Your task to perform on an android device: delete browsing data in the chrome app Image 0: 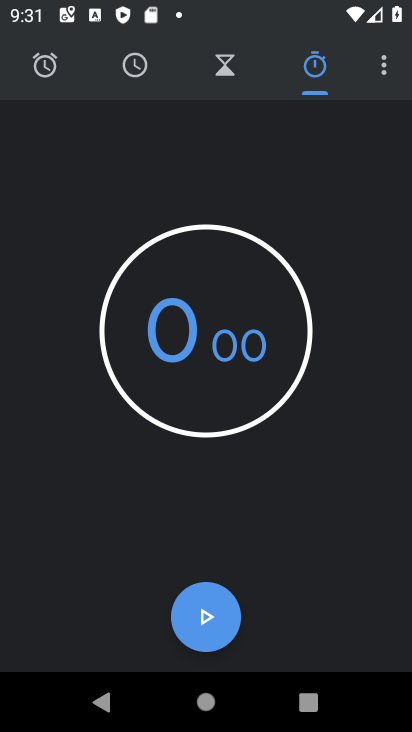
Step 0: press home button
Your task to perform on an android device: delete browsing data in the chrome app Image 1: 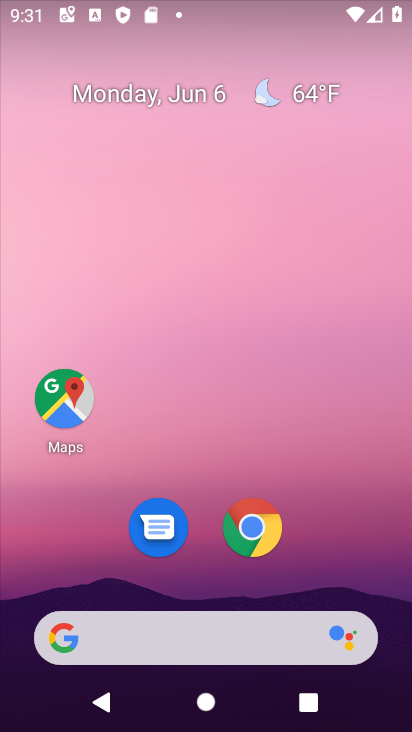
Step 1: drag from (229, 611) to (280, 197)
Your task to perform on an android device: delete browsing data in the chrome app Image 2: 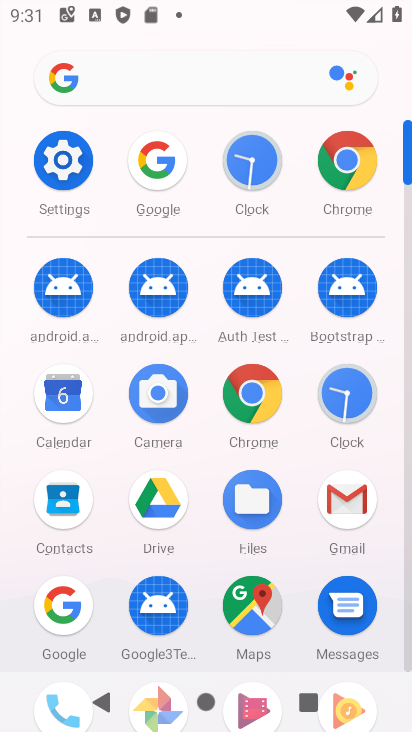
Step 2: click (355, 174)
Your task to perform on an android device: delete browsing data in the chrome app Image 3: 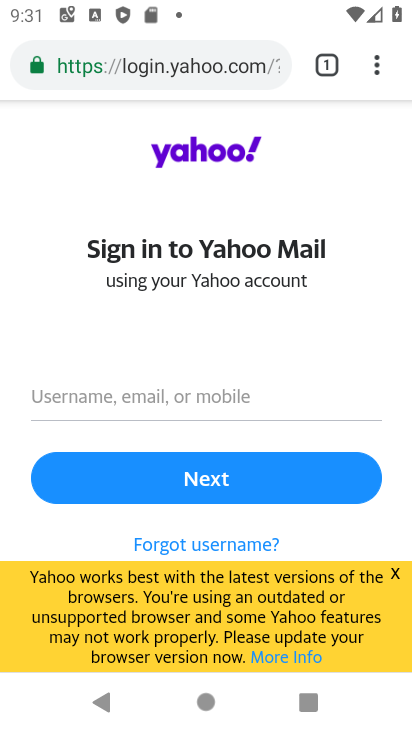
Step 3: click (384, 78)
Your task to perform on an android device: delete browsing data in the chrome app Image 4: 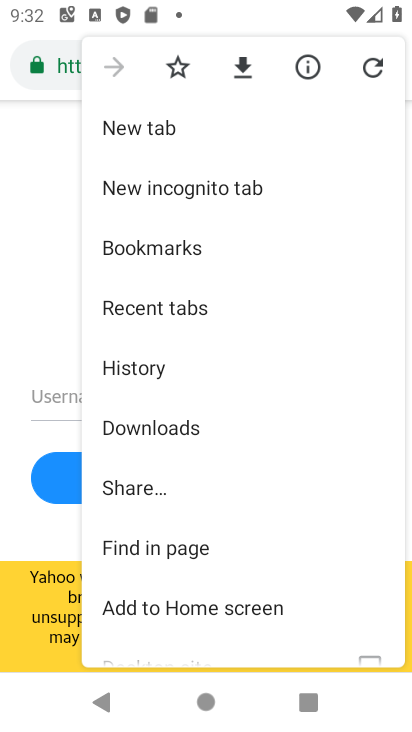
Step 4: drag from (168, 523) to (230, 321)
Your task to perform on an android device: delete browsing data in the chrome app Image 5: 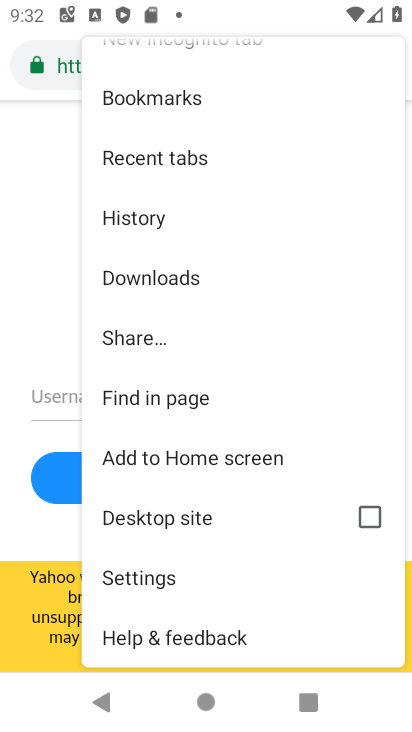
Step 5: click (162, 213)
Your task to perform on an android device: delete browsing data in the chrome app Image 6: 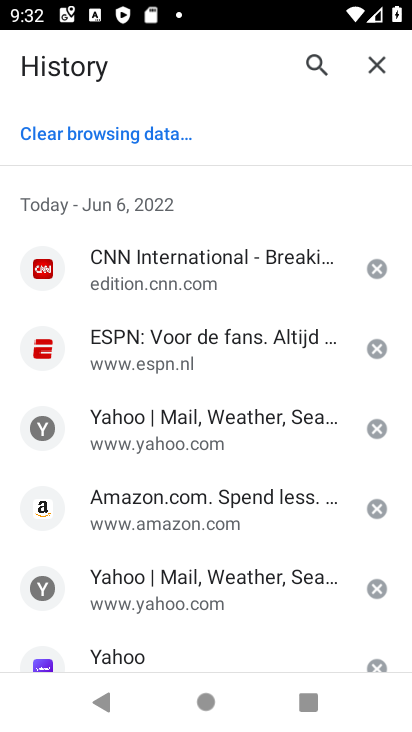
Step 6: click (121, 125)
Your task to perform on an android device: delete browsing data in the chrome app Image 7: 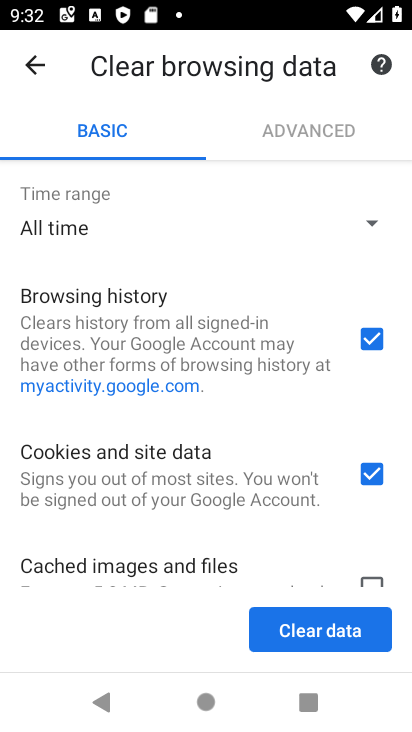
Step 7: click (308, 628)
Your task to perform on an android device: delete browsing data in the chrome app Image 8: 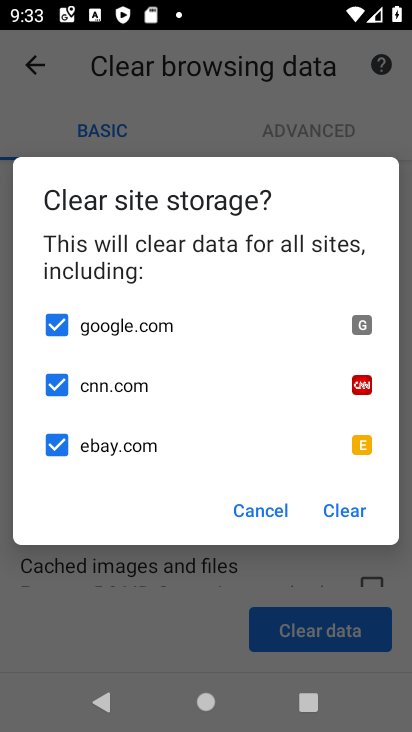
Step 8: click (332, 525)
Your task to perform on an android device: delete browsing data in the chrome app Image 9: 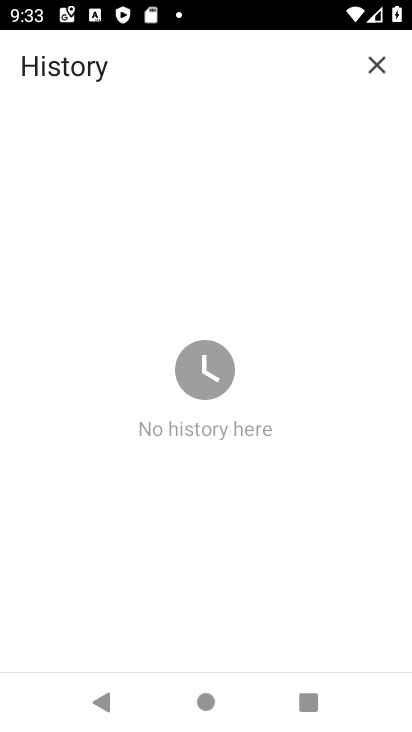
Step 9: task complete